Your task to perform on an android device: Open Android settings Image 0: 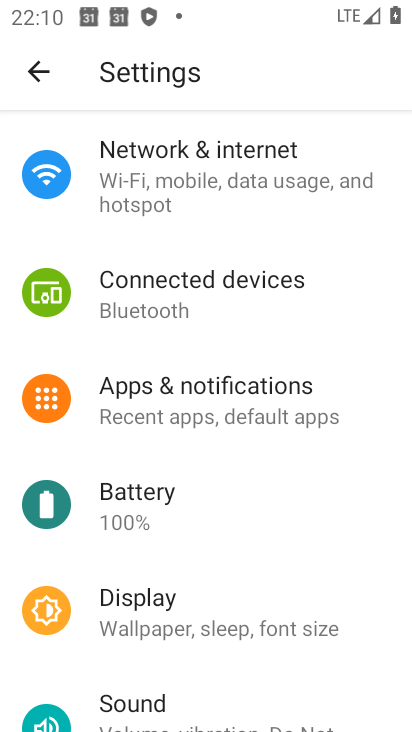
Step 0: task complete